Your task to perform on an android device: open chrome privacy settings Image 0: 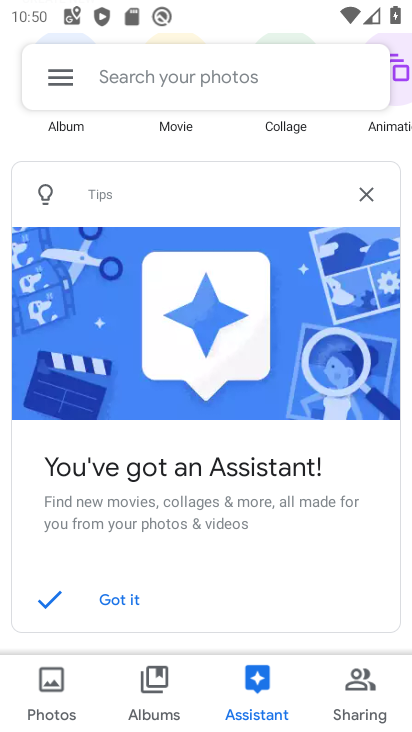
Step 0: press home button
Your task to perform on an android device: open chrome privacy settings Image 1: 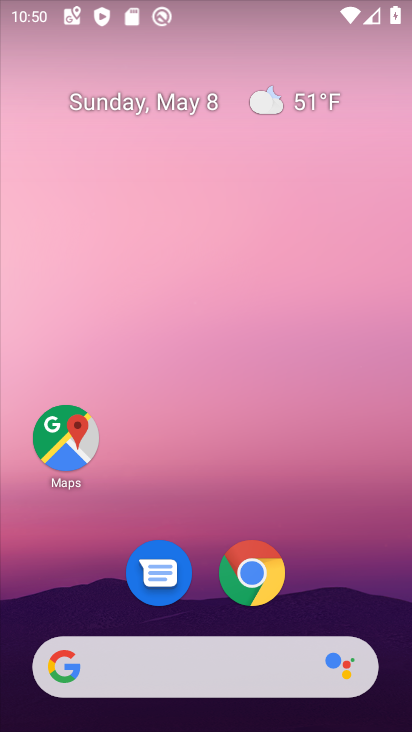
Step 1: click (252, 578)
Your task to perform on an android device: open chrome privacy settings Image 2: 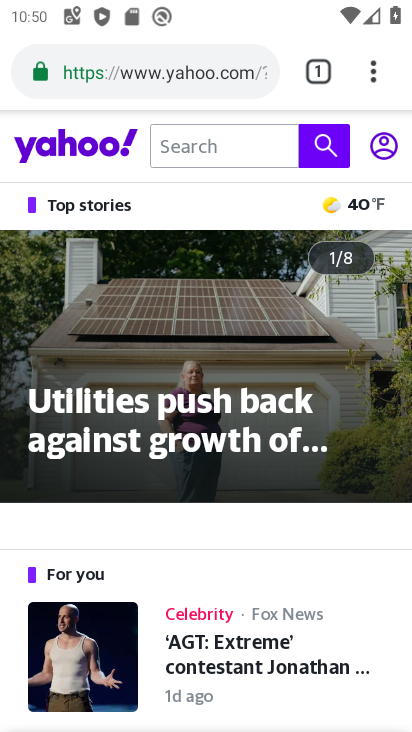
Step 2: click (374, 66)
Your task to perform on an android device: open chrome privacy settings Image 3: 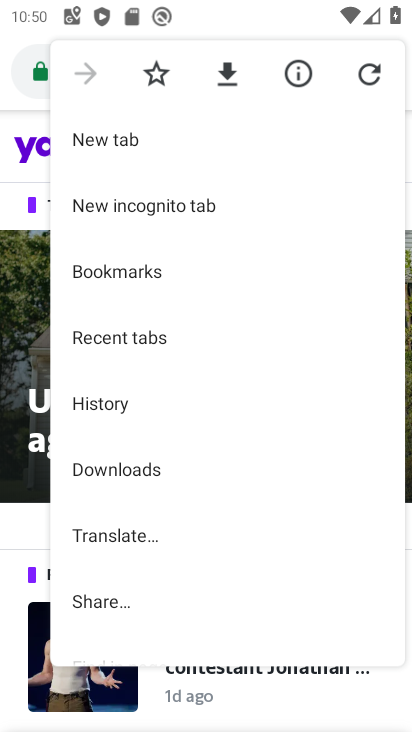
Step 3: drag from (117, 551) to (140, 281)
Your task to perform on an android device: open chrome privacy settings Image 4: 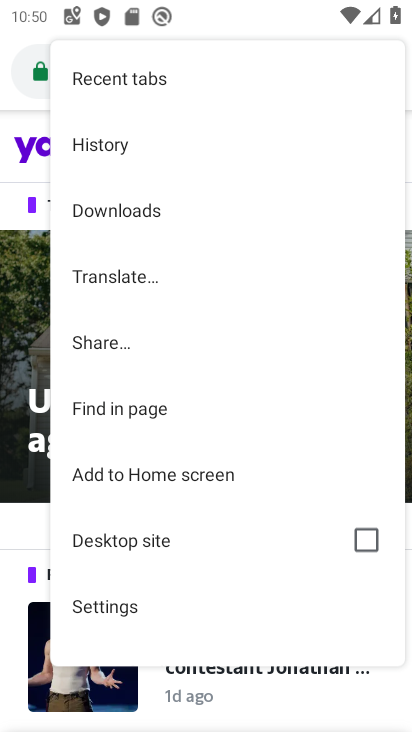
Step 4: click (115, 607)
Your task to perform on an android device: open chrome privacy settings Image 5: 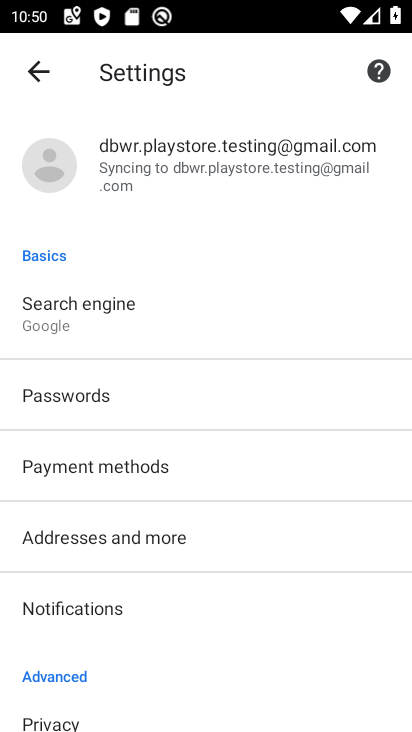
Step 5: drag from (107, 703) to (99, 367)
Your task to perform on an android device: open chrome privacy settings Image 6: 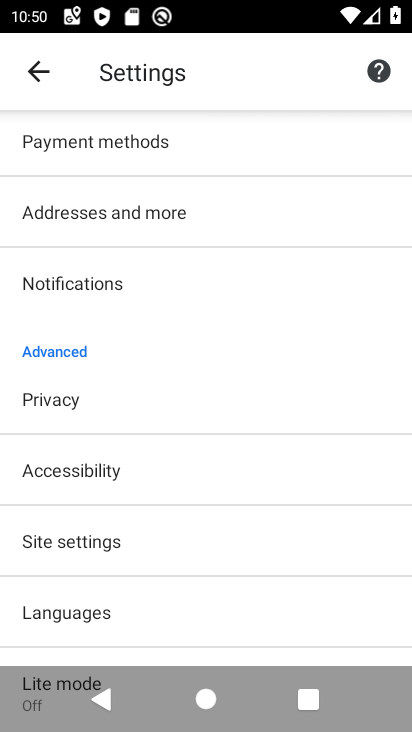
Step 6: click (30, 402)
Your task to perform on an android device: open chrome privacy settings Image 7: 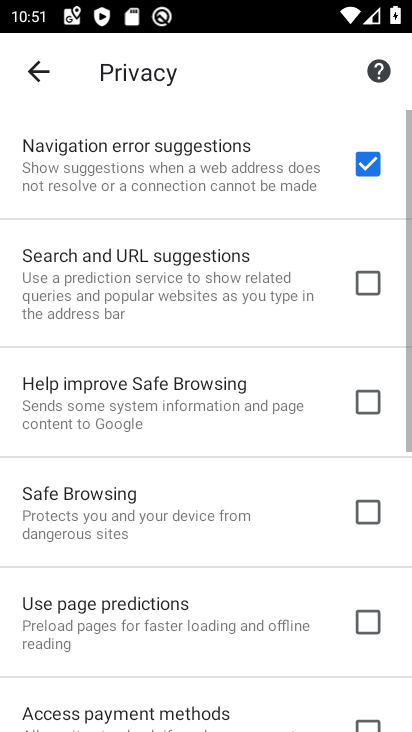
Step 7: drag from (171, 640) to (171, 245)
Your task to perform on an android device: open chrome privacy settings Image 8: 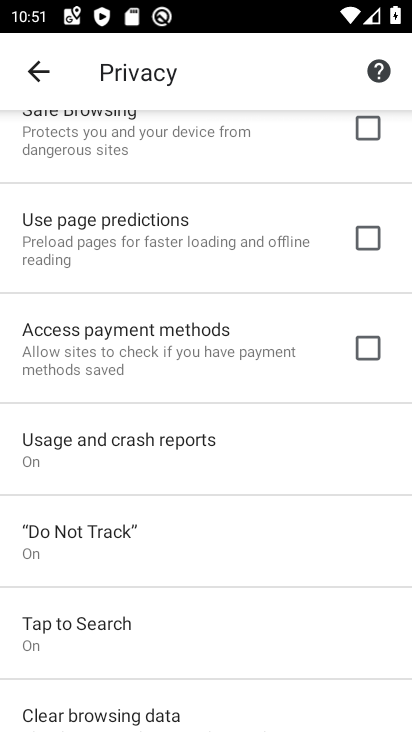
Step 8: drag from (164, 668) to (178, 241)
Your task to perform on an android device: open chrome privacy settings Image 9: 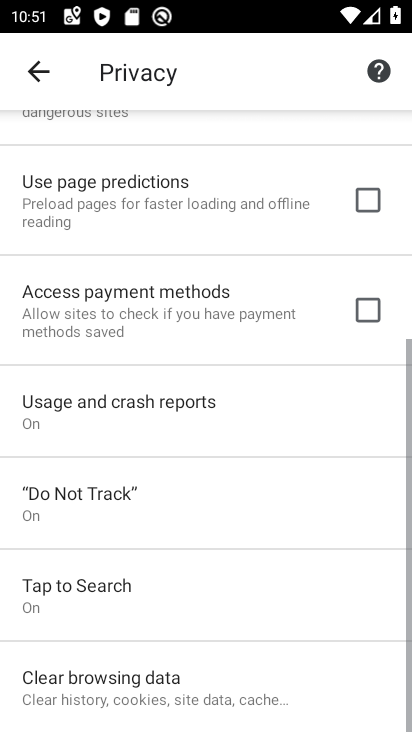
Step 9: click (161, 700)
Your task to perform on an android device: open chrome privacy settings Image 10: 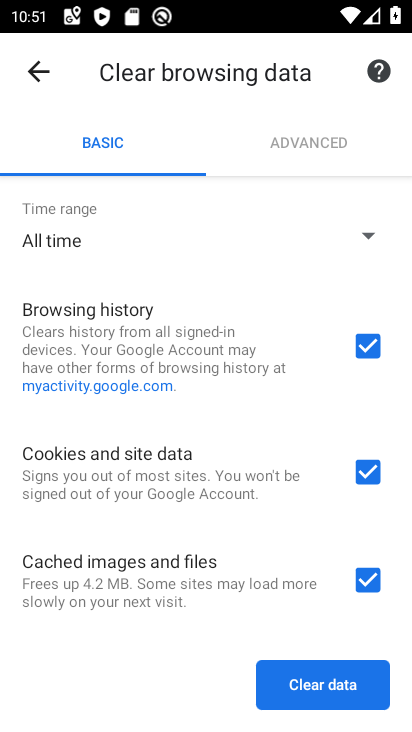
Step 10: task complete